Your task to perform on an android device: turn vacation reply on in the gmail app Image 0: 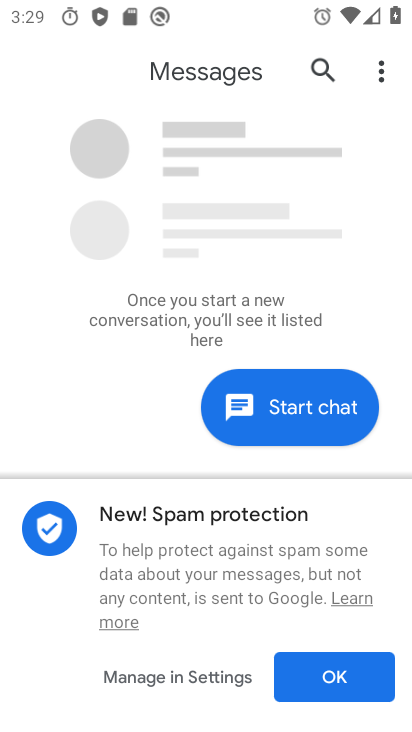
Step 0: press home button
Your task to perform on an android device: turn vacation reply on in the gmail app Image 1: 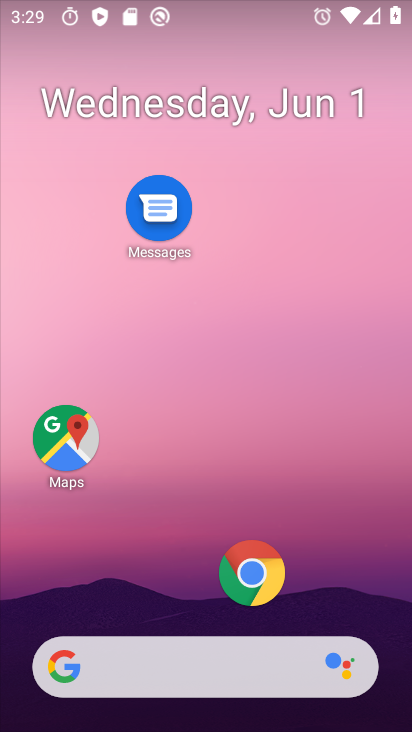
Step 1: drag from (186, 601) to (240, 221)
Your task to perform on an android device: turn vacation reply on in the gmail app Image 2: 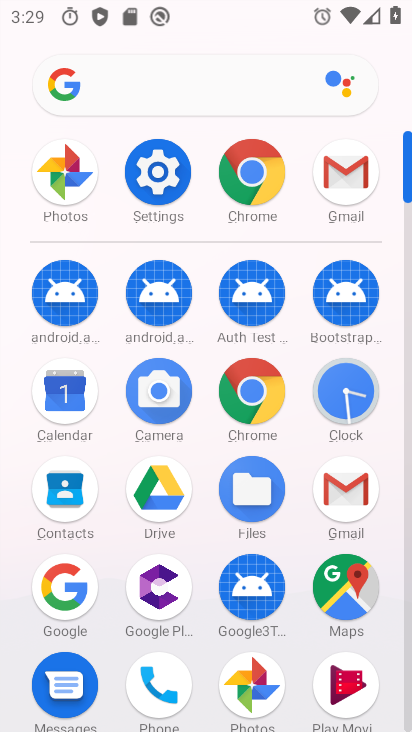
Step 2: click (329, 182)
Your task to perform on an android device: turn vacation reply on in the gmail app Image 3: 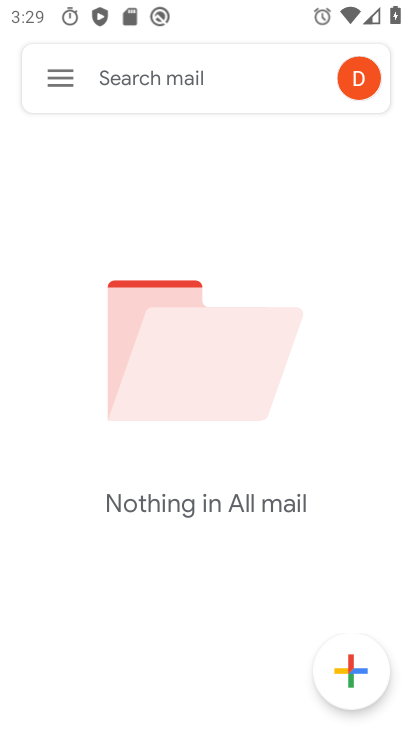
Step 3: click (67, 78)
Your task to perform on an android device: turn vacation reply on in the gmail app Image 4: 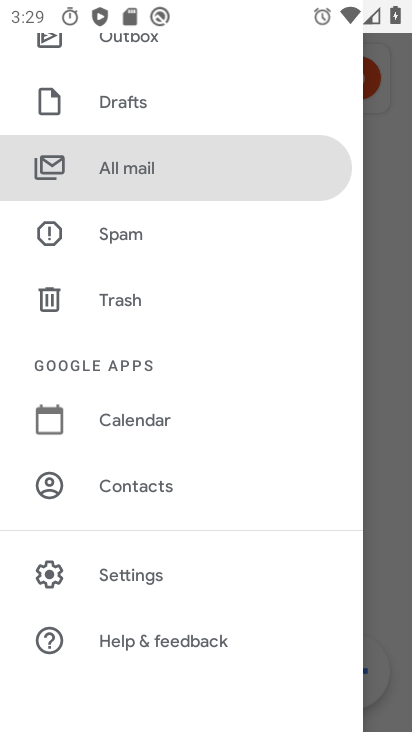
Step 4: click (128, 567)
Your task to perform on an android device: turn vacation reply on in the gmail app Image 5: 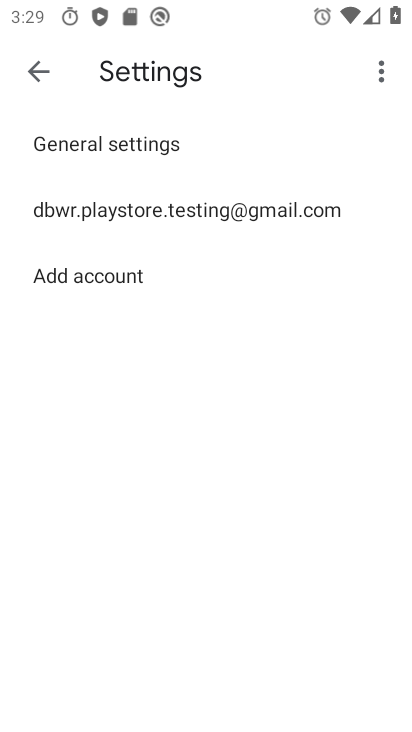
Step 5: click (222, 213)
Your task to perform on an android device: turn vacation reply on in the gmail app Image 6: 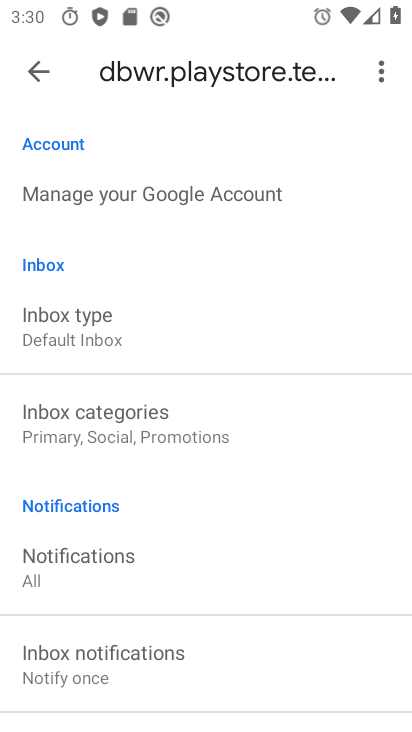
Step 6: drag from (161, 610) to (196, 410)
Your task to perform on an android device: turn vacation reply on in the gmail app Image 7: 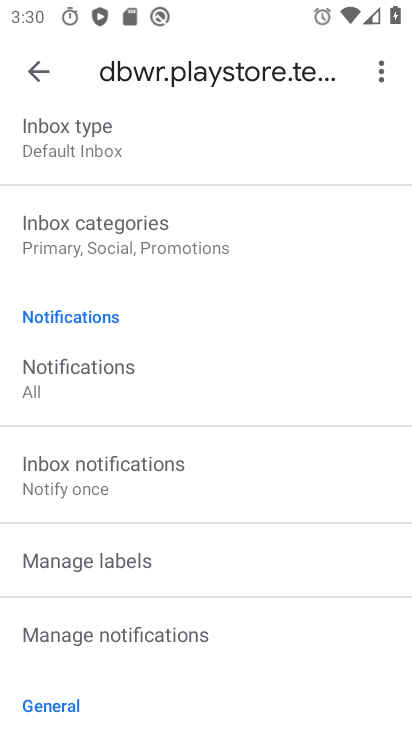
Step 7: drag from (189, 605) to (195, 436)
Your task to perform on an android device: turn vacation reply on in the gmail app Image 8: 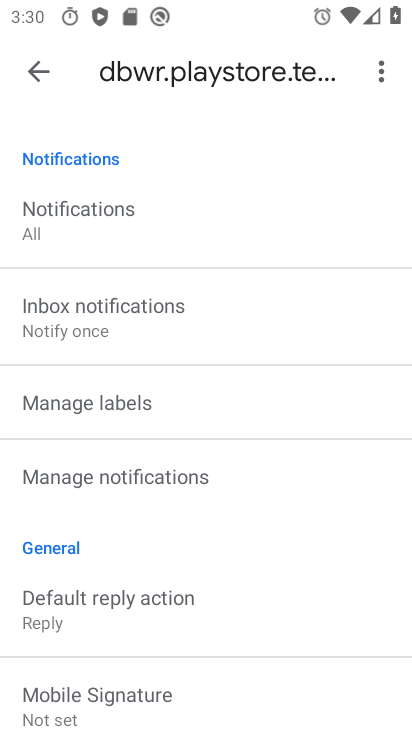
Step 8: drag from (170, 632) to (175, 290)
Your task to perform on an android device: turn vacation reply on in the gmail app Image 9: 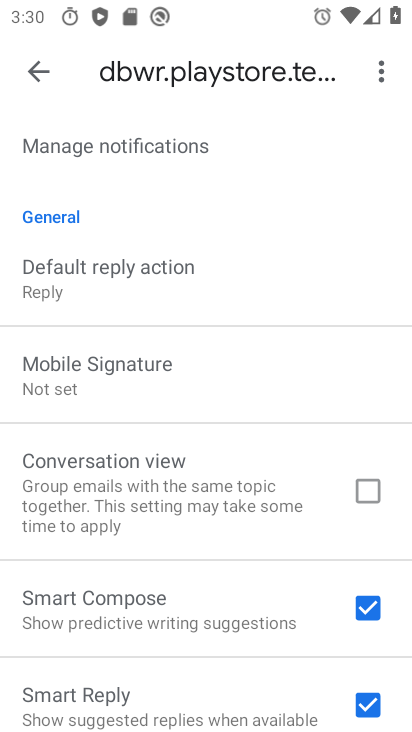
Step 9: drag from (206, 601) to (202, 294)
Your task to perform on an android device: turn vacation reply on in the gmail app Image 10: 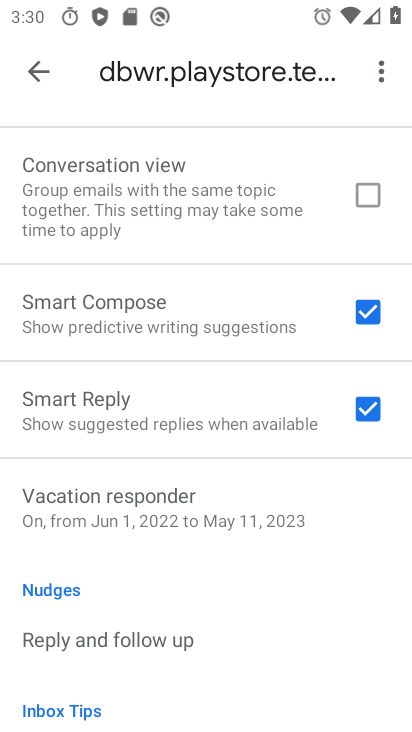
Step 10: click (203, 508)
Your task to perform on an android device: turn vacation reply on in the gmail app Image 11: 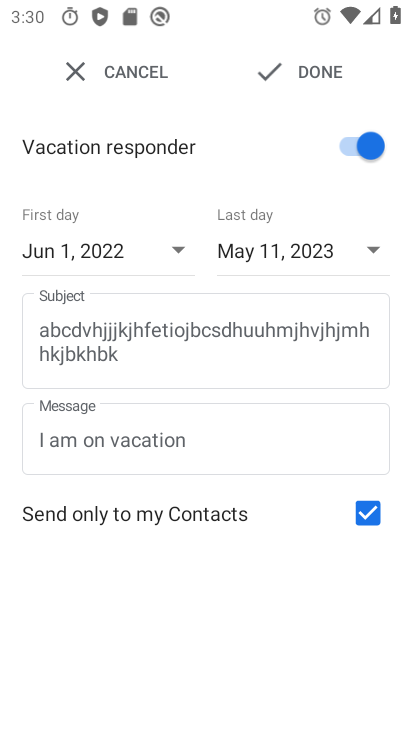
Step 11: task complete